Your task to perform on an android device: Clear all items from cart on costco. Add "razer thresher" to the cart on costco Image 0: 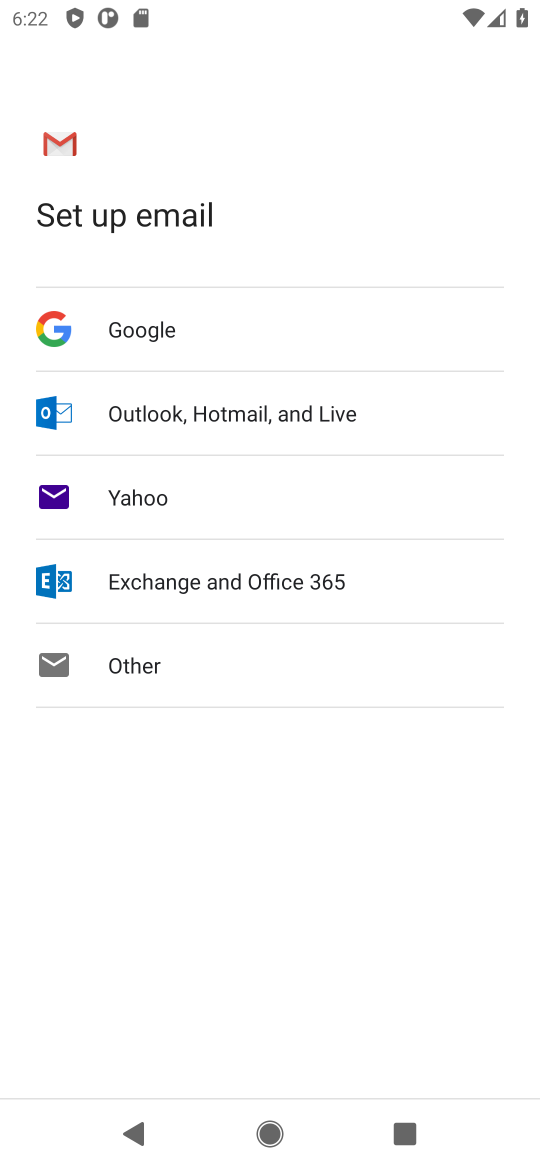
Step 0: press home button
Your task to perform on an android device: Clear all items from cart on costco. Add "razer thresher" to the cart on costco Image 1: 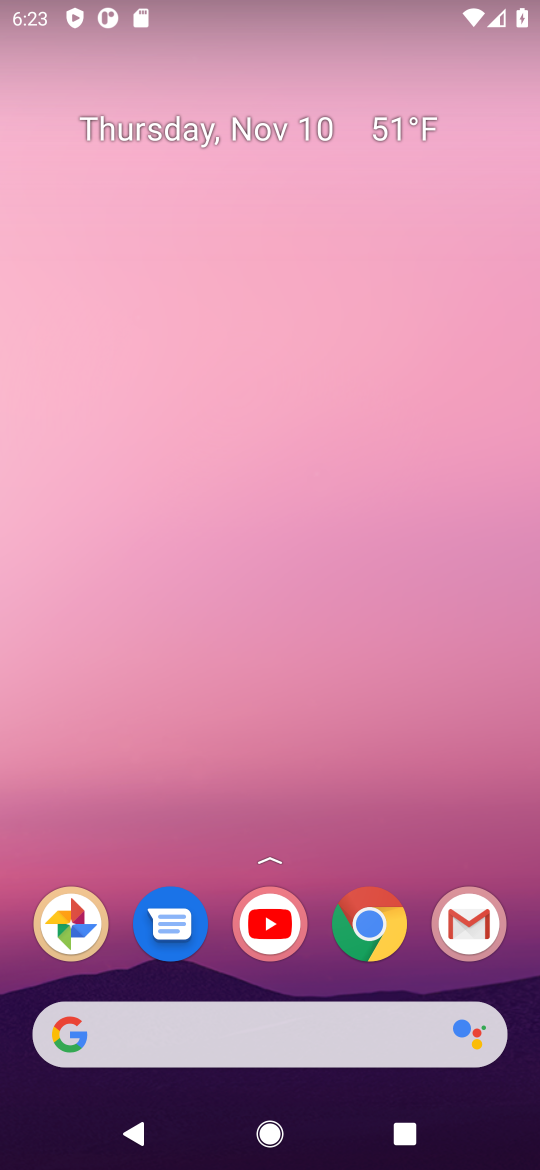
Step 1: click (367, 931)
Your task to perform on an android device: Clear all items from cart on costco. Add "razer thresher" to the cart on costco Image 2: 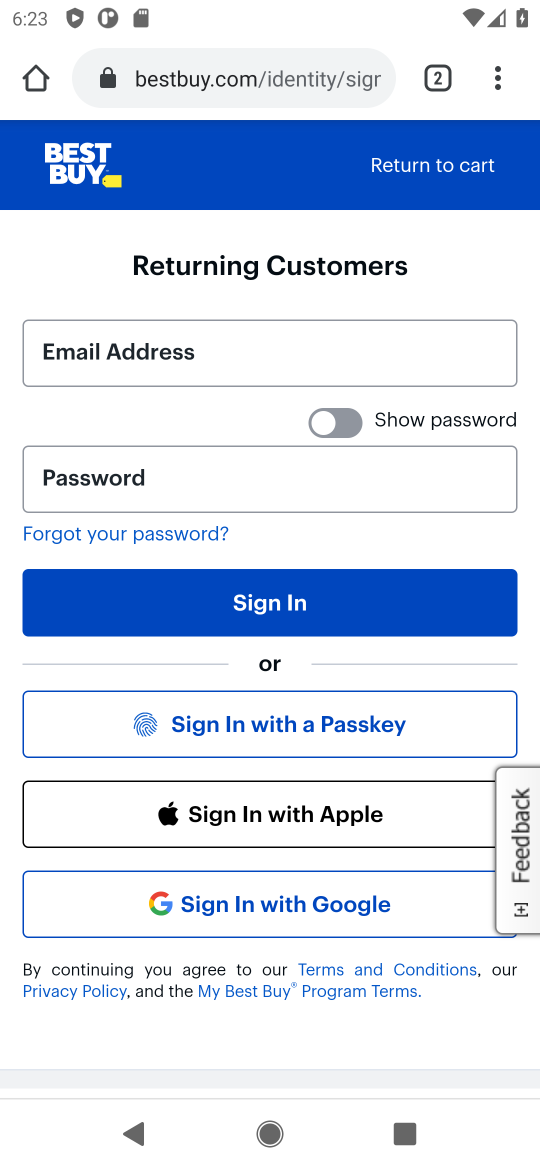
Step 2: click (211, 75)
Your task to perform on an android device: Clear all items from cart on costco. Add "razer thresher" to the cart on costco Image 3: 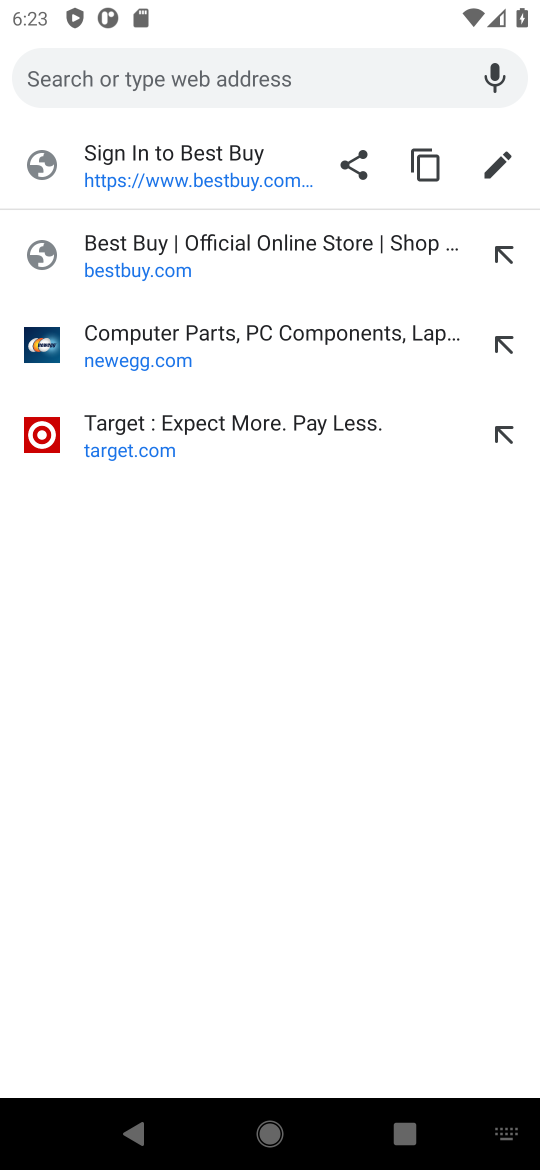
Step 3: type "costco.com"
Your task to perform on an android device: Clear all items from cart on costco. Add "razer thresher" to the cart on costco Image 4: 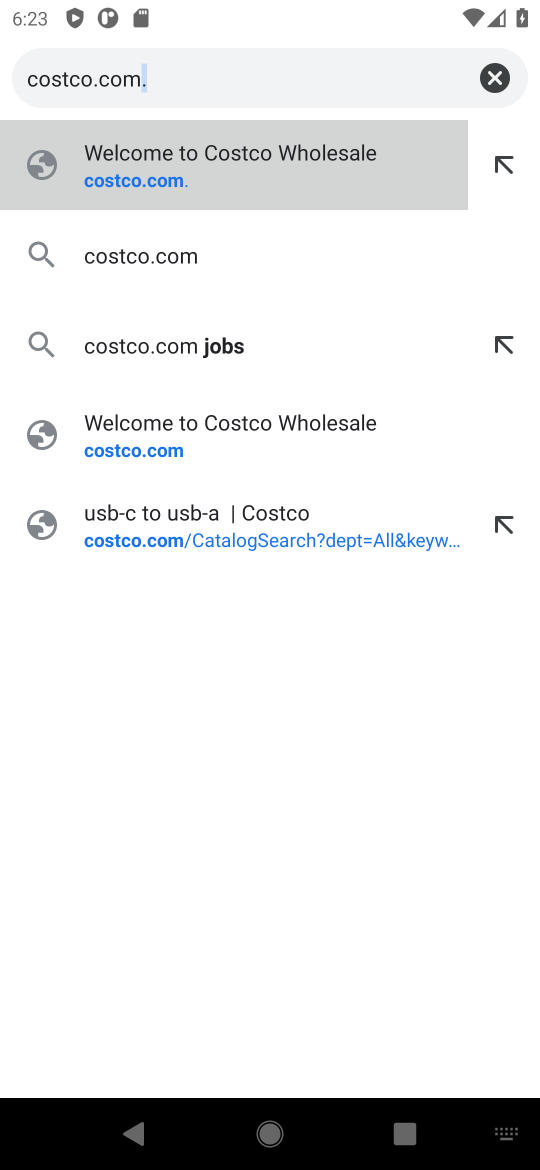
Step 4: click (156, 199)
Your task to perform on an android device: Clear all items from cart on costco. Add "razer thresher" to the cart on costco Image 5: 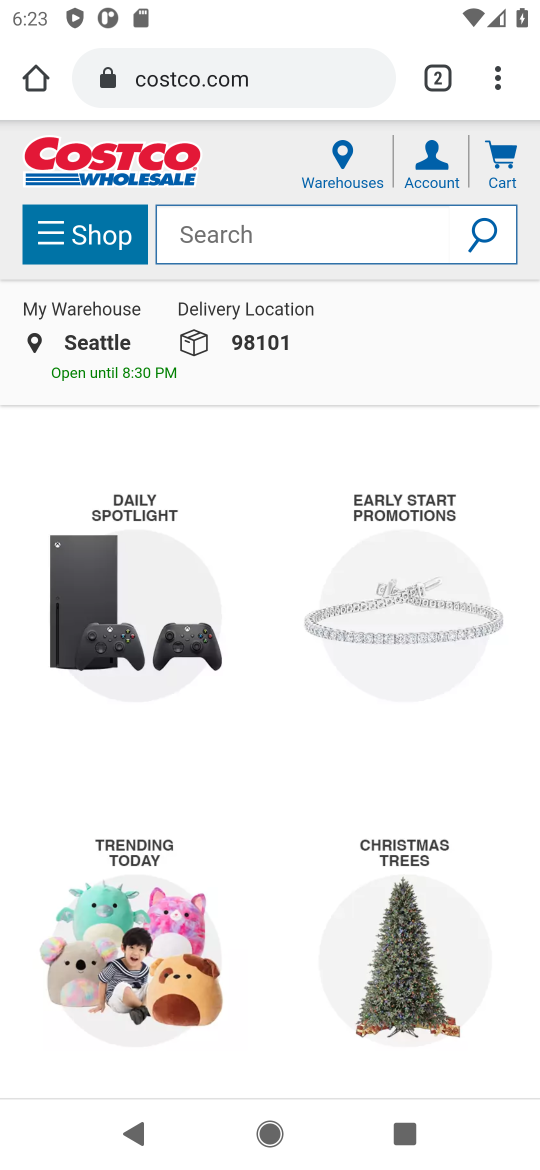
Step 5: click (505, 167)
Your task to perform on an android device: Clear all items from cart on costco. Add "razer thresher" to the cart on costco Image 6: 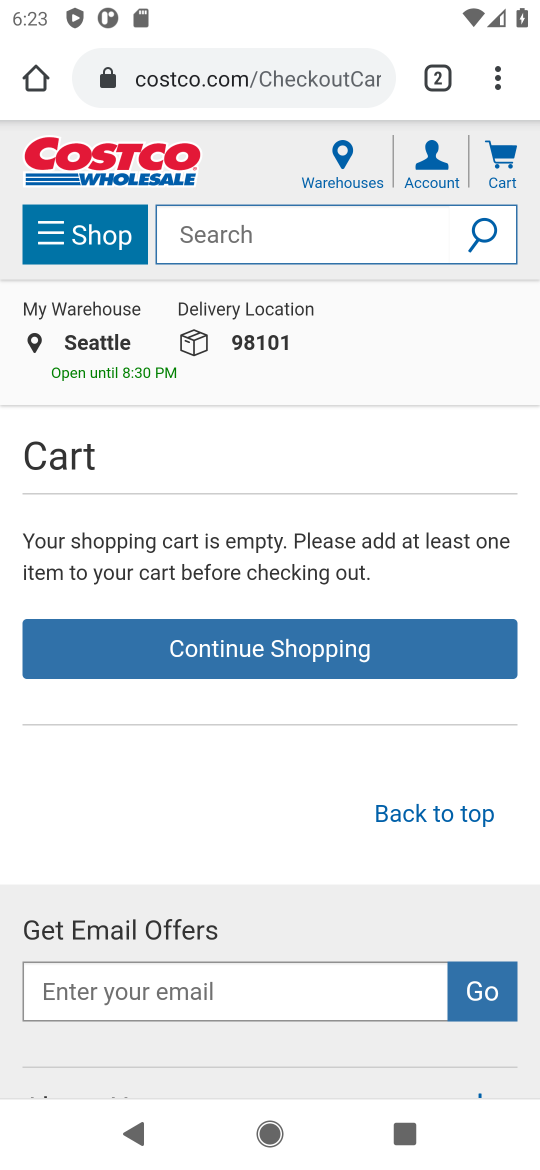
Step 6: click (273, 233)
Your task to perform on an android device: Clear all items from cart on costco. Add "razer thresher" to the cart on costco Image 7: 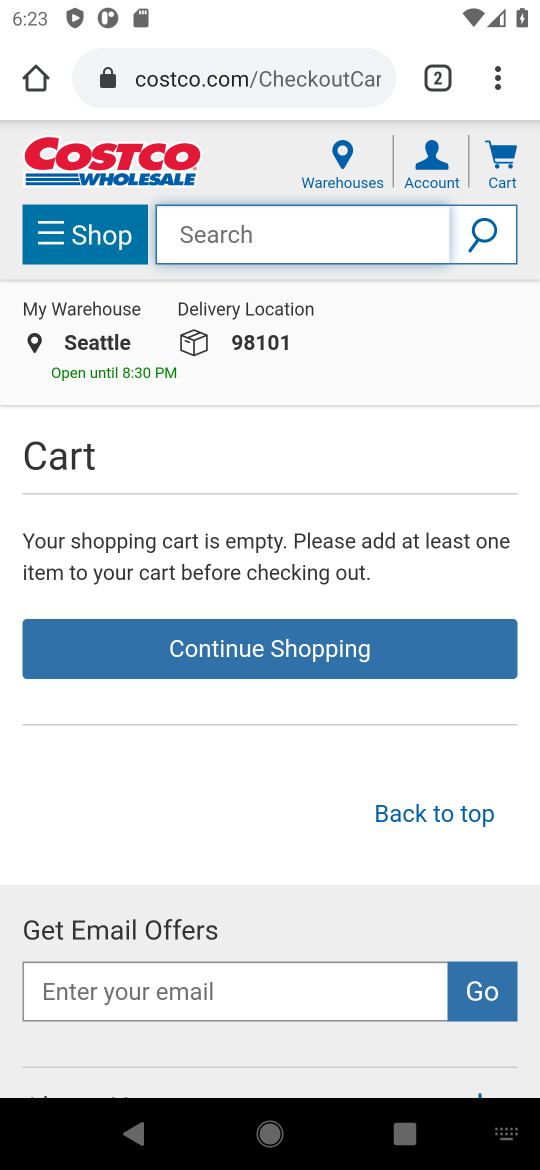
Step 7: type "razer thresher"
Your task to perform on an android device: Clear all items from cart on costco. Add "razer thresher" to the cart on costco Image 8: 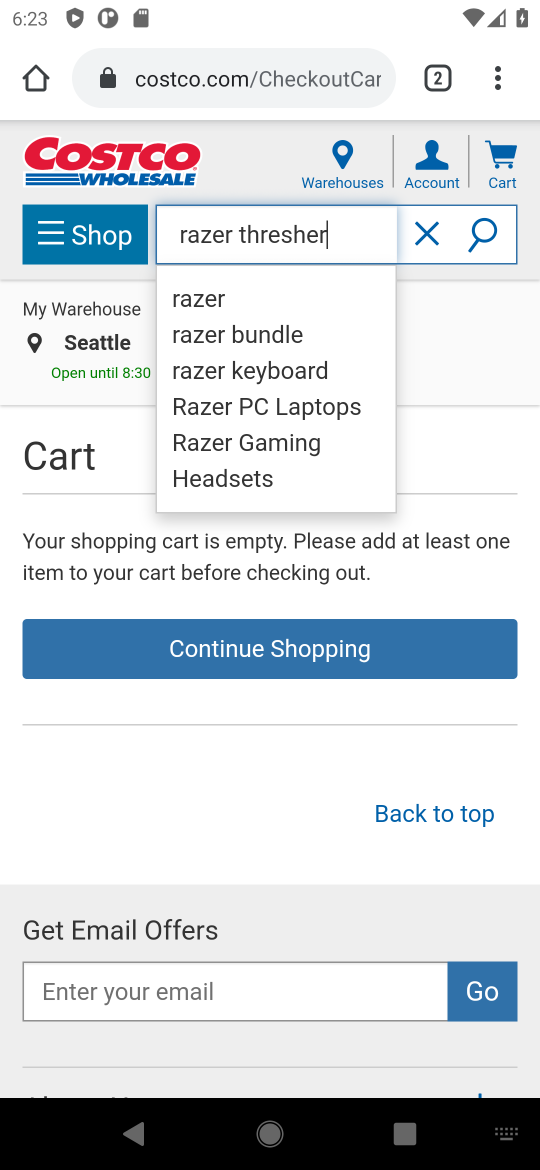
Step 8: click (477, 238)
Your task to perform on an android device: Clear all items from cart on costco. Add "razer thresher" to the cart on costco Image 9: 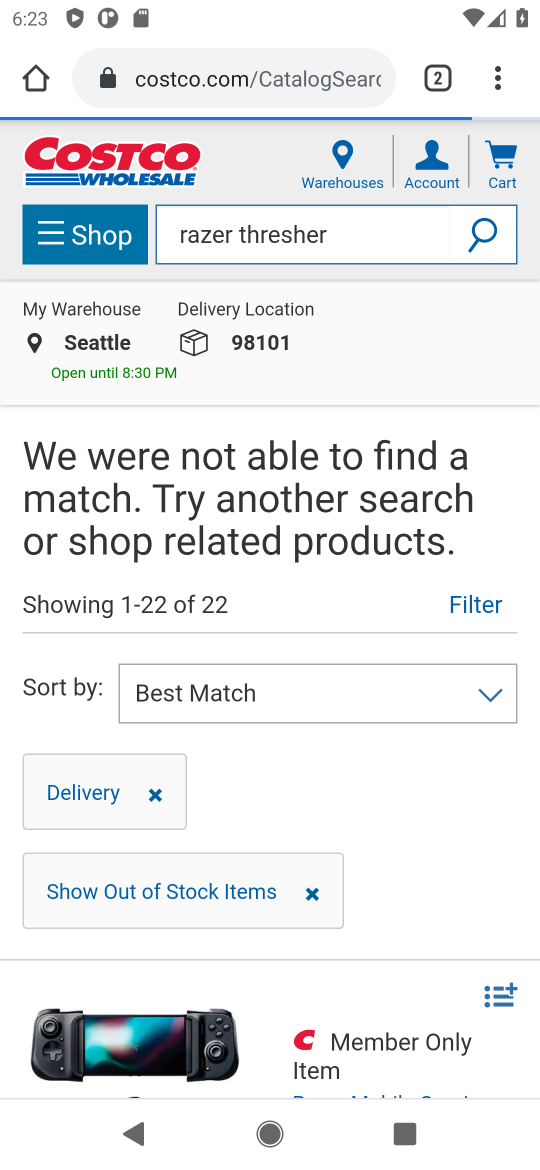
Step 9: task complete